Your task to perform on an android device: Search for sushi restaurants on Maps Image 0: 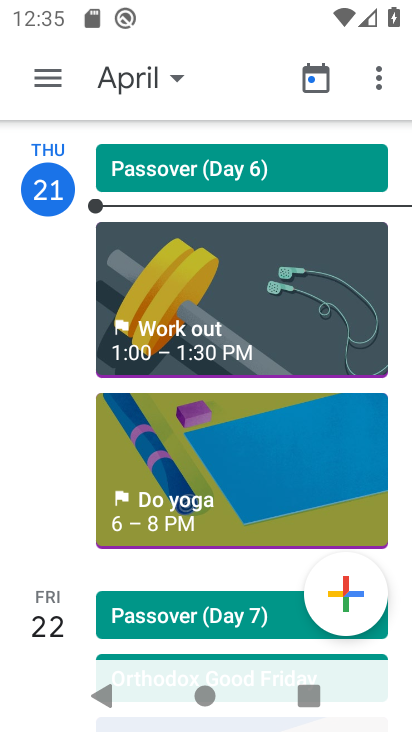
Step 0: press home button
Your task to perform on an android device: Search for sushi restaurants on Maps Image 1: 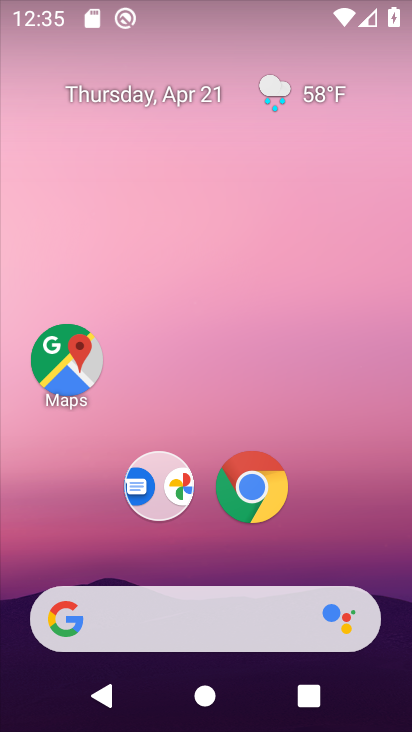
Step 1: drag from (245, 644) to (321, 97)
Your task to perform on an android device: Search for sushi restaurants on Maps Image 2: 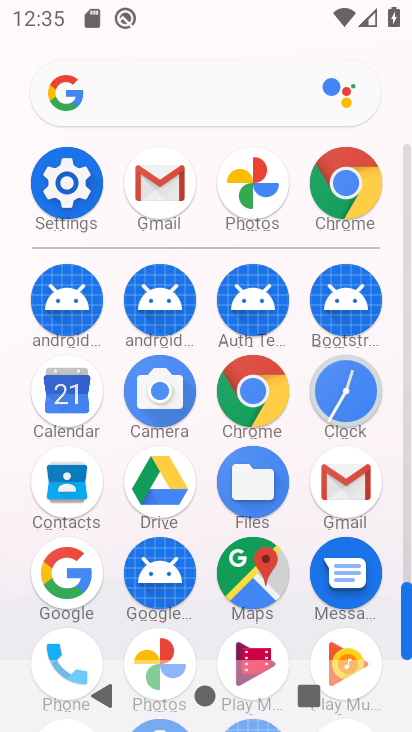
Step 2: click (257, 564)
Your task to perform on an android device: Search for sushi restaurants on Maps Image 3: 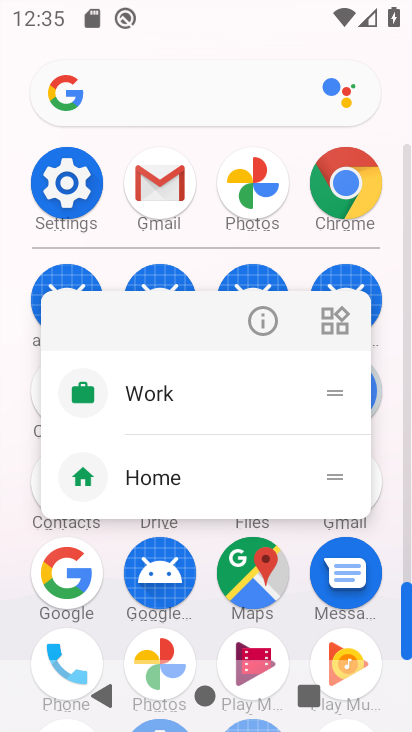
Step 3: click (242, 550)
Your task to perform on an android device: Search for sushi restaurants on Maps Image 4: 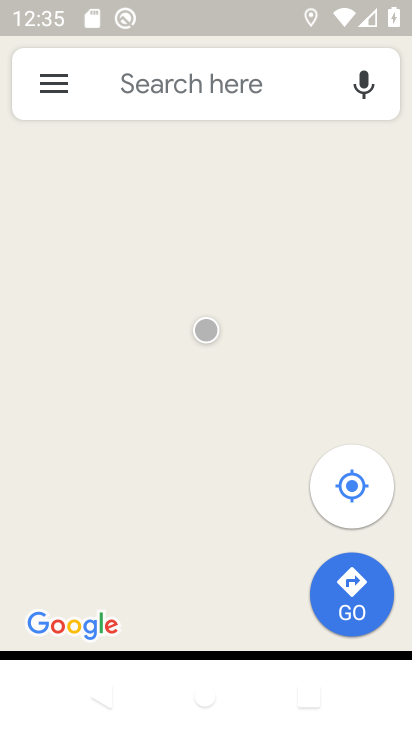
Step 4: click (177, 96)
Your task to perform on an android device: Search for sushi restaurants on Maps Image 5: 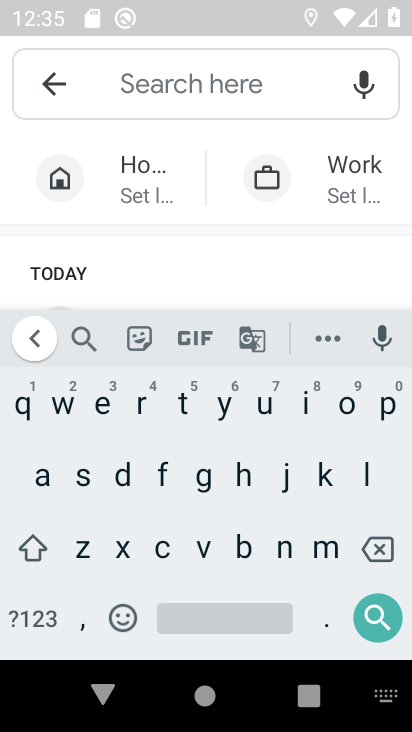
Step 5: click (81, 469)
Your task to perform on an android device: Search for sushi restaurants on Maps Image 6: 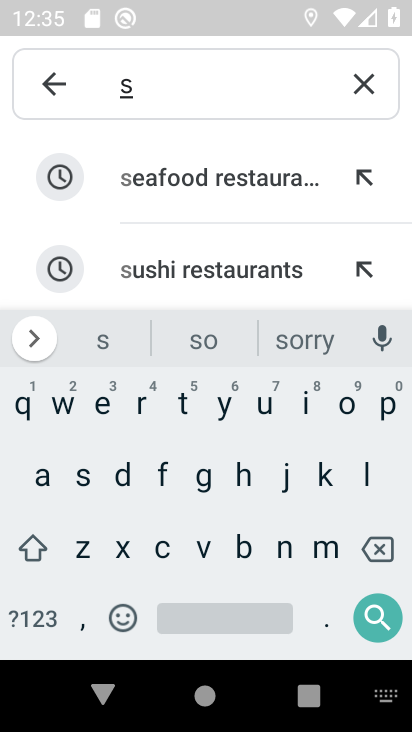
Step 6: click (169, 275)
Your task to perform on an android device: Search for sushi restaurants on Maps Image 7: 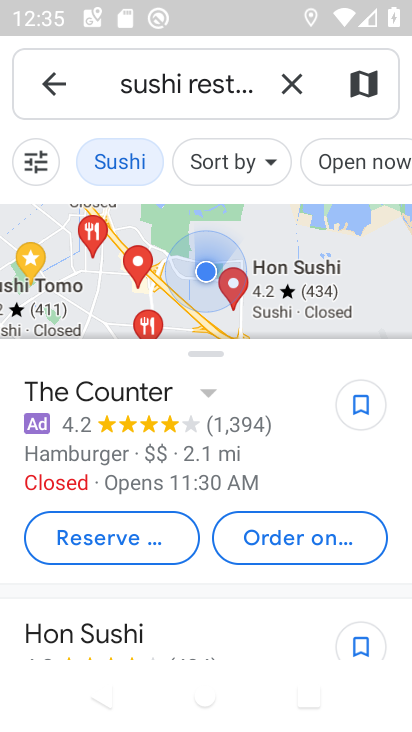
Step 7: click (153, 231)
Your task to perform on an android device: Search for sushi restaurants on Maps Image 8: 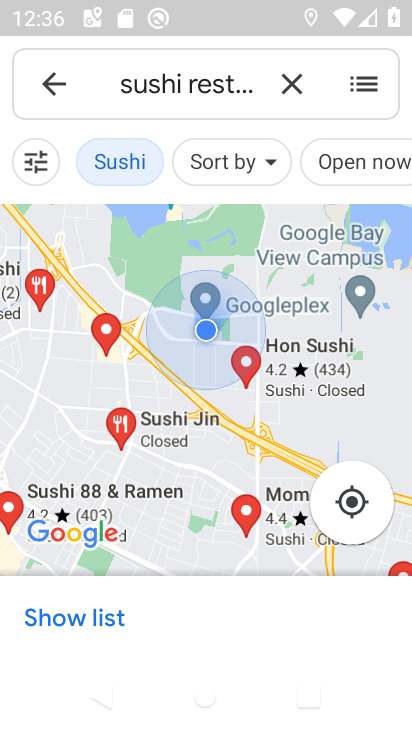
Step 8: task complete